Your task to perform on an android device: Open internet settings Image 0: 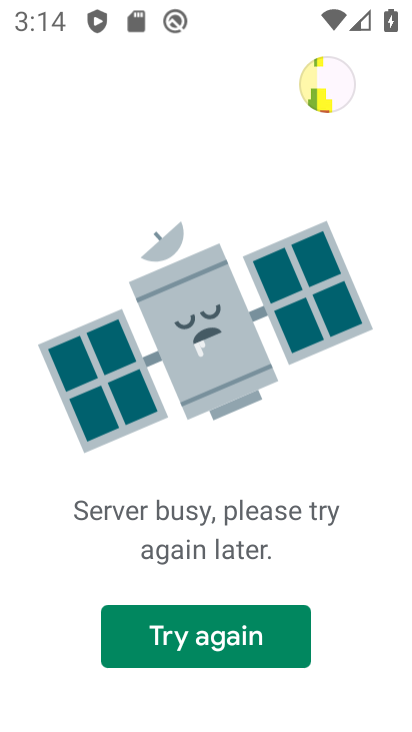
Step 0: press home button
Your task to perform on an android device: Open internet settings Image 1: 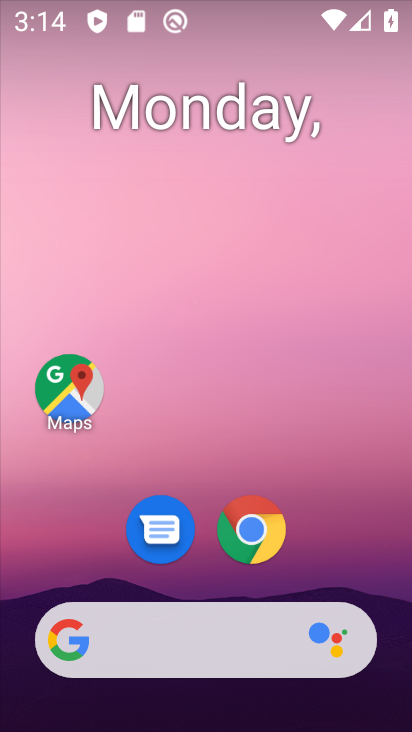
Step 1: drag from (264, 510) to (396, 4)
Your task to perform on an android device: Open internet settings Image 2: 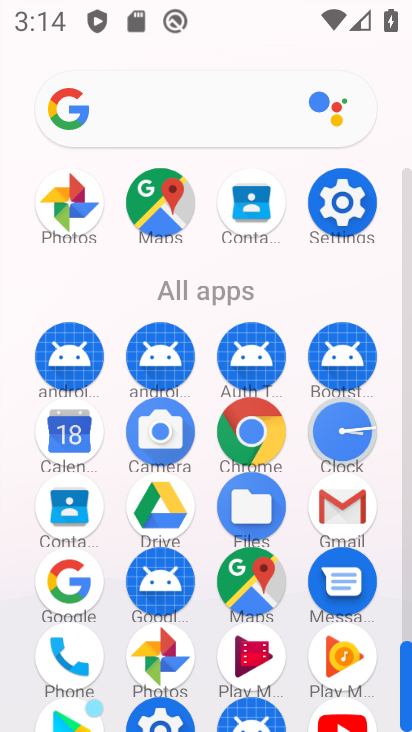
Step 2: click (356, 199)
Your task to perform on an android device: Open internet settings Image 3: 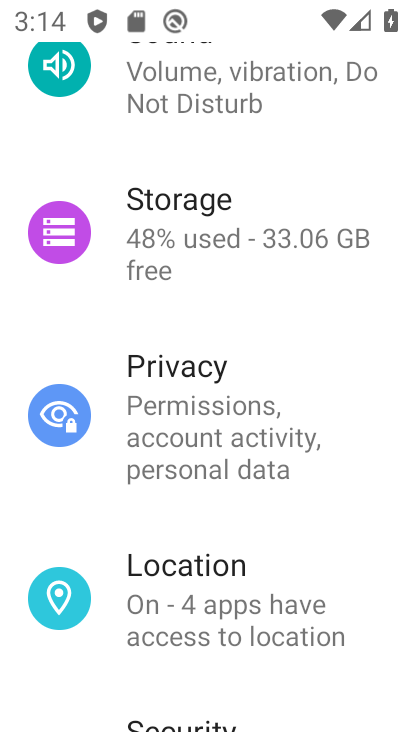
Step 3: drag from (243, 129) to (266, 531)
Your task to perform on an android device: Open internet settings Image 4: 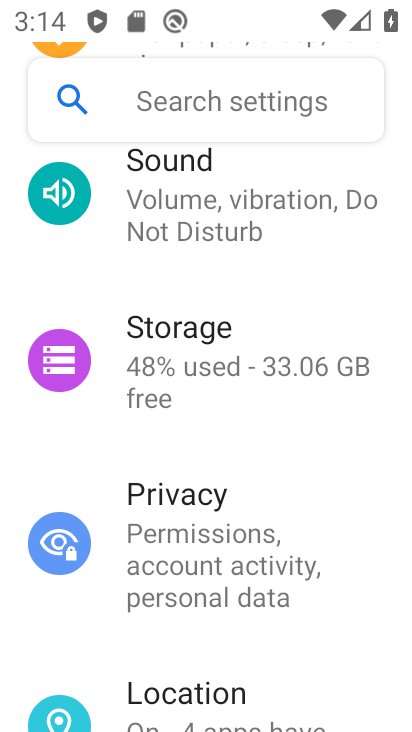
Step 4: drag from (285, 212) to (270, 366)
Your task to perform on an android device: Open internet settings Image 5: 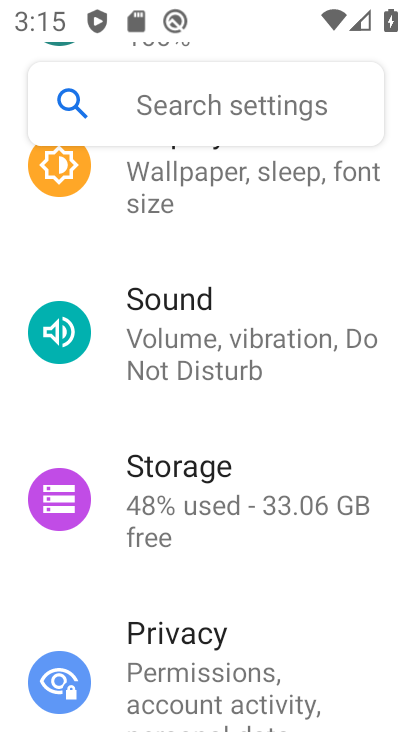
Step 5: drag from (265, 239) to (252, 729)
Your task to perform on an android device: Open internet settings Image 6: 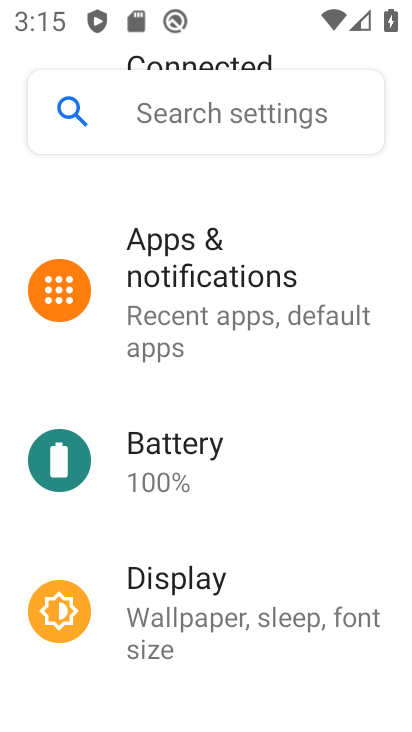
Step 6: drag from (230, 250) to (255, 700)
Your task to perform on an android device: Open internet settings Image 7: 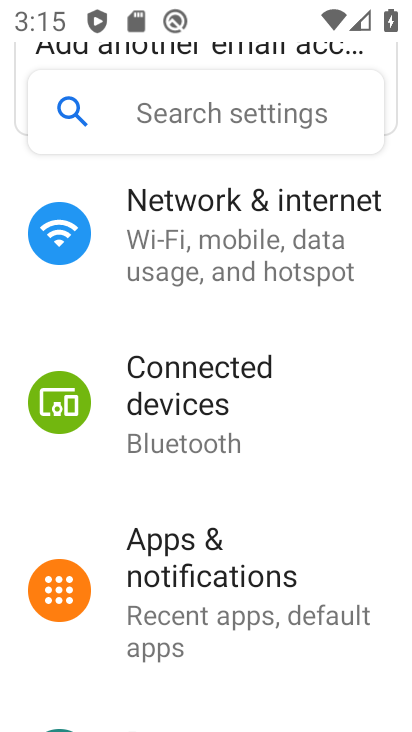
Step 7: click (247, 230)
Your task to perform on an android device: Open internet settings Image 8: 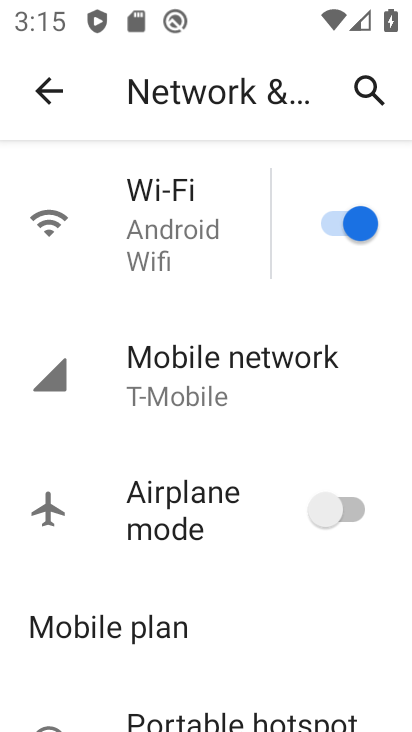
Step 8: task complete